Your task to perform on an android device: turn off data saver in the chrome app Image 0: 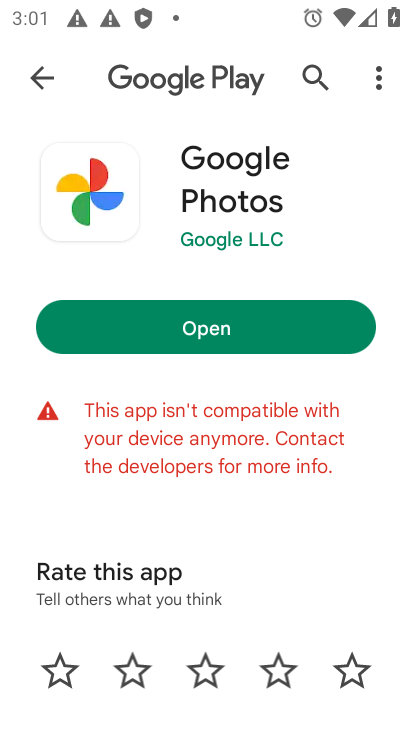
Step 0: press home button
Your task to perform on an android device: turn off data saver in the chrome app Image 1: 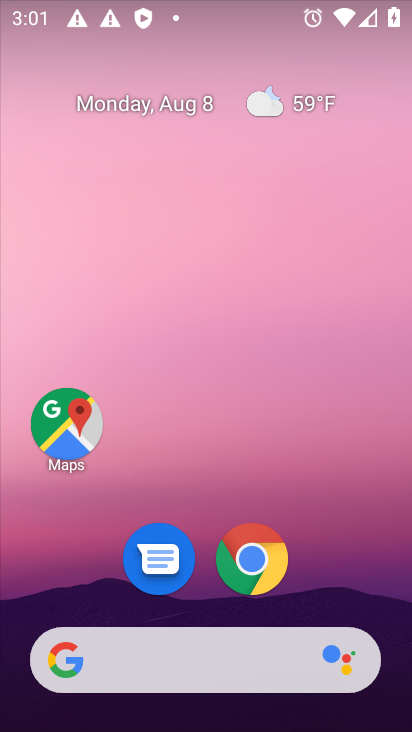
Step 1: drag from (164, 651) to (329, 124)
Your task to perform on an android device: turn off data saver in the chrome app Image 2: 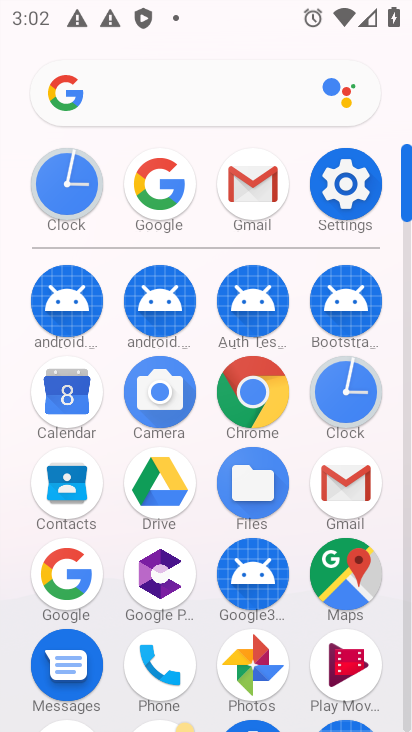
Step 2: click (255, 387)
Your task to perform on an android device: turn off data saver in the chrome app Image 3: 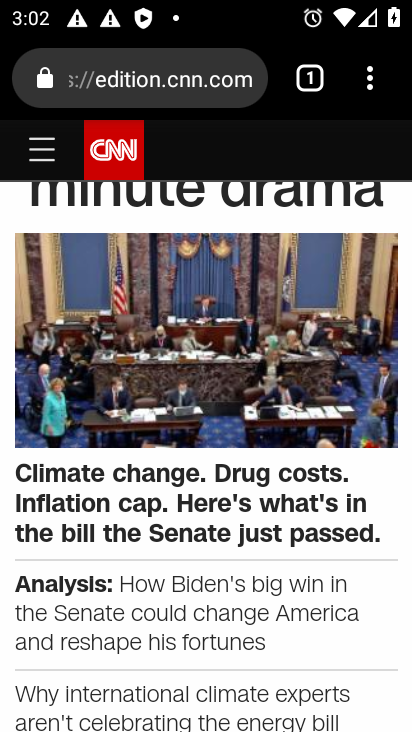
Step 3: click (372, 80)
Your task to perform on an android device: turn off data saver in the chrome app Image 4: 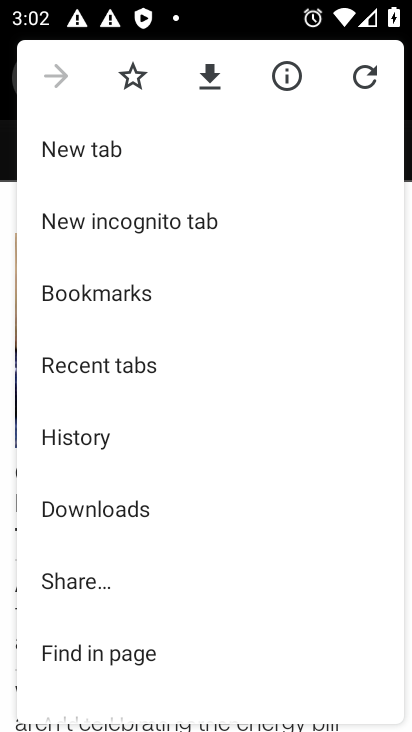
Step 4: drag from (182, 459) to (230, 366)
Your task to perform on an android device: turn off data saver in the chrome app Image 5: 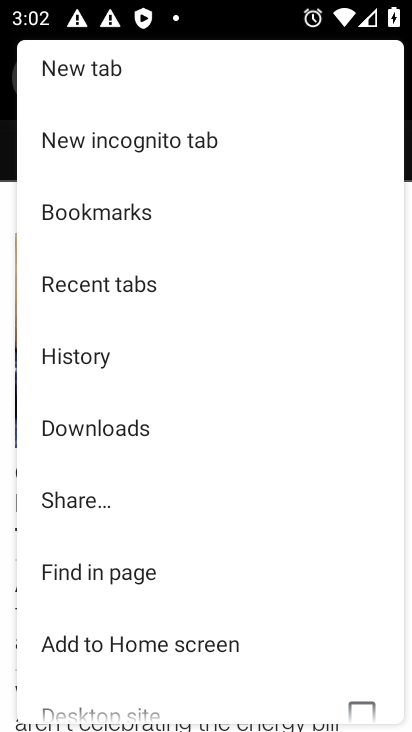
Step 5: drag from (192, 565) to (248, 470)
Your task to perform on an android device: turn off data saver in the chrome app Image 6: 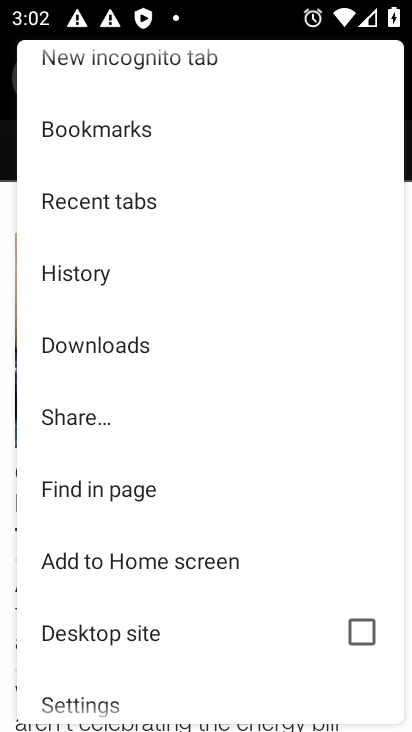
Step 6: drag from (176, 623) to (259, 520)
Your task to perform on an android device: turn off data saver in the chrome app Image 7: 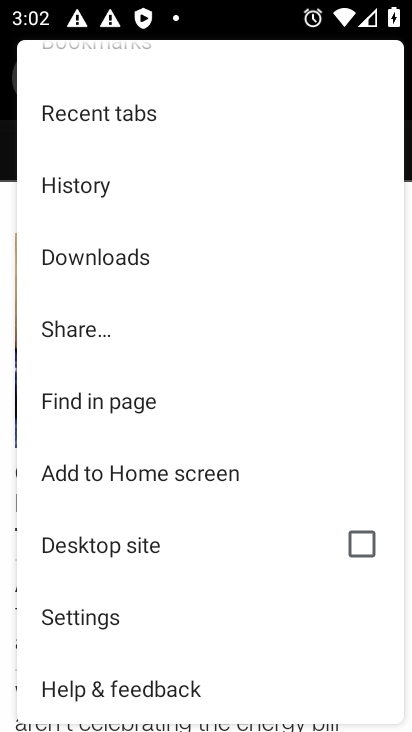
Step 7: click (110, 614)
Your task to perform on an android device: turn off data saver in the chrome app Image 8: 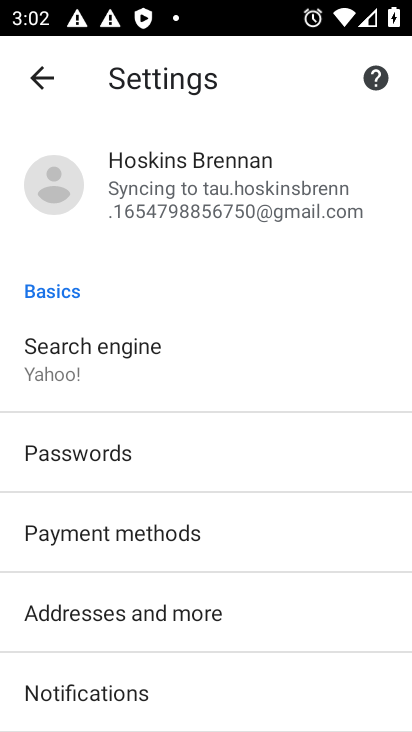
Step 8: drag from (113, 606) to (169, 488)
Your task to perform on an android device: turn off data saver in the chrome app Image 9: 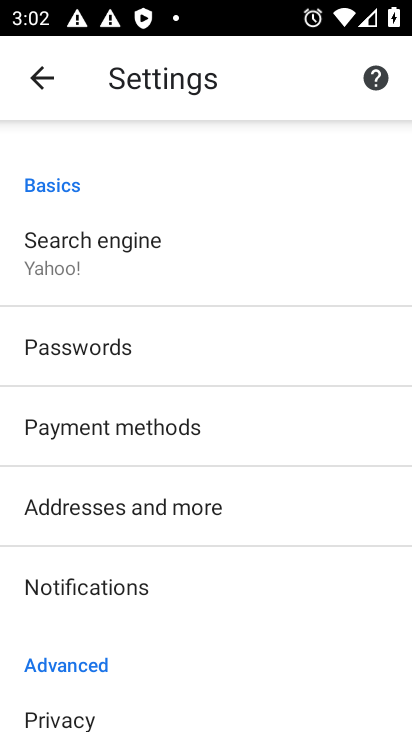
Step 9: drag from (174, 628) to (253, 516)
Your task to perform on an android device: turn off data saver in the chrome app Image 10: 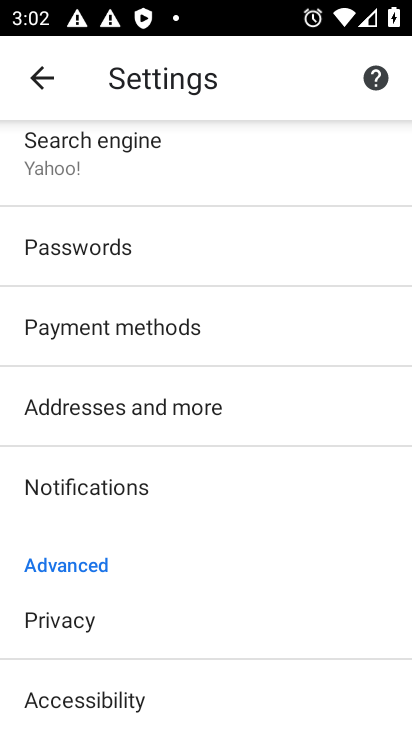
Step 10: drag from (179, 616) to (235, 491)
Your task to perform on an android device: turn off data saver in the chrome app Image 11: 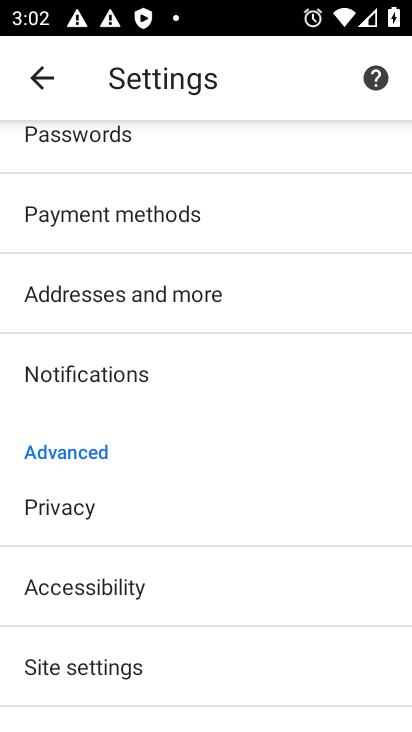
Step 11: drag from (165, 640) to (225, 551)
Your task to perform on an android device: turn off data saver in the chrome app Image 12: 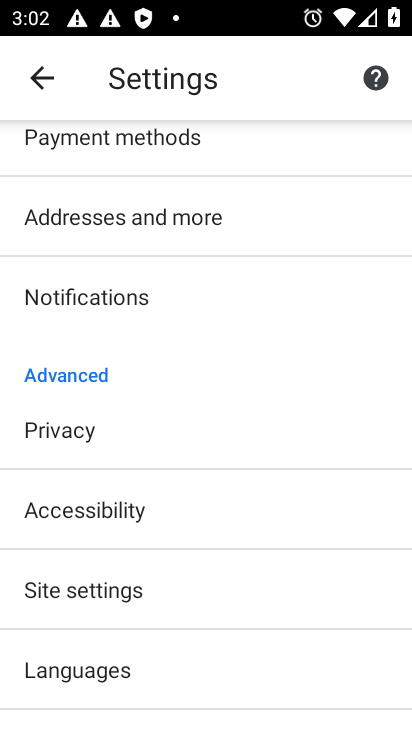
Step 12: drag from (212, 626) to (263, 522)
Your task to perform on an android device: turn off data saver in the chrome app Image 13: 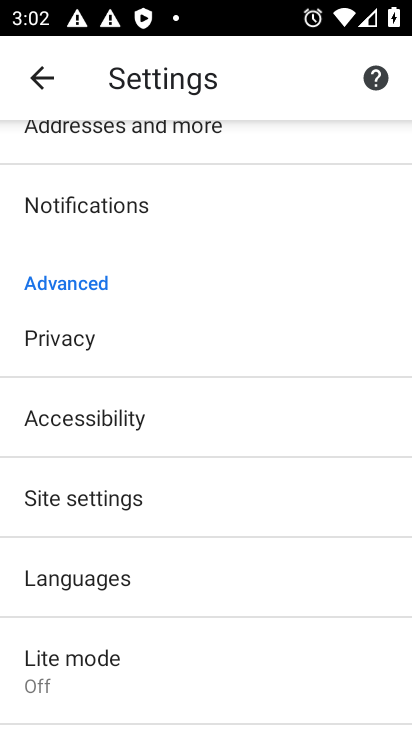
Step 13: click (112, 659)
Your task to perform on an android device: turn off data saver in the chrome app Image 14: 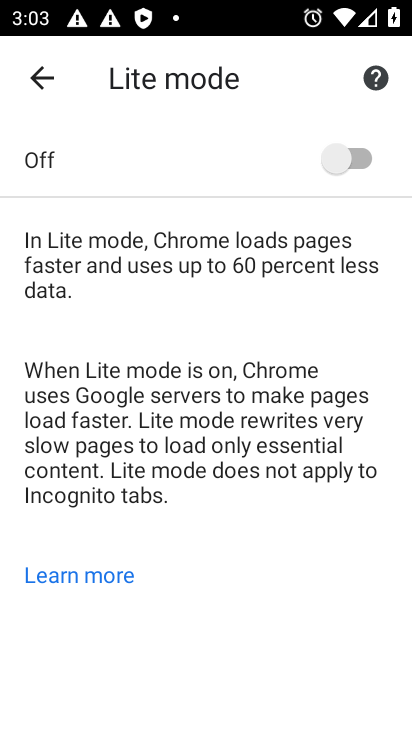
Step 14: task complete